Your task to perform on an android device: Do I have any events tomorrow? Image 0: 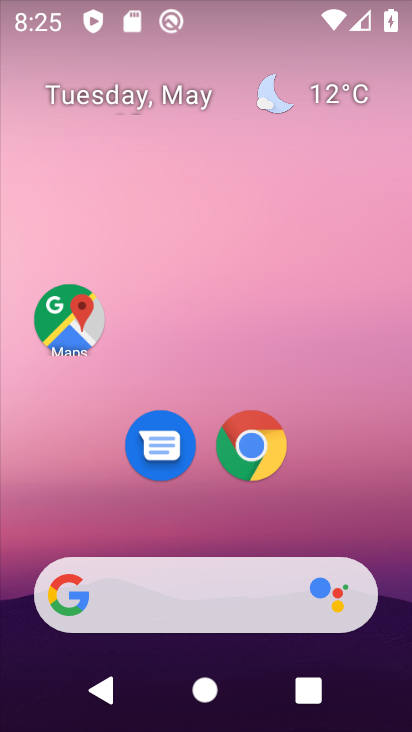
Step 0: drag from (304, 540) to (303, 334)
Your task to perform on an android device: Do I have any events tomorrow? Image 1: 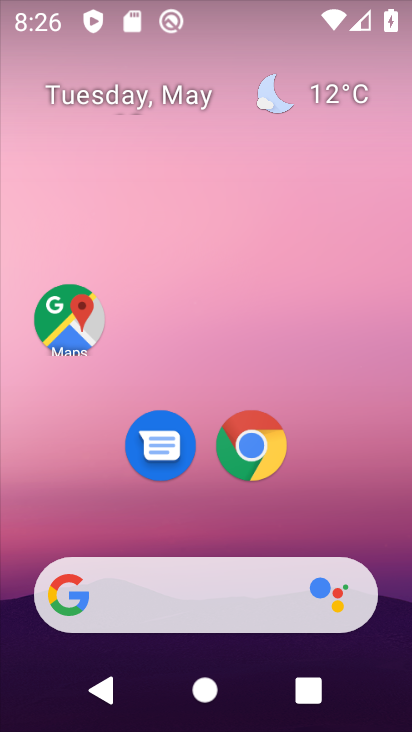
Step 1: drag from (300, 504) to (302, 333)
Your task to perform on an android device: Do I have any events tomorrow? Image 2: 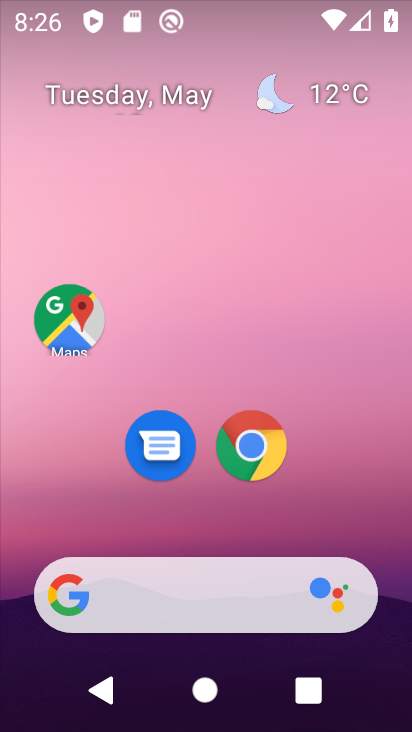
Step 2: drag from (276, 515) to (286, 350)
Your task to perform on an android device: Do I have any events tomorrow? Image 3: 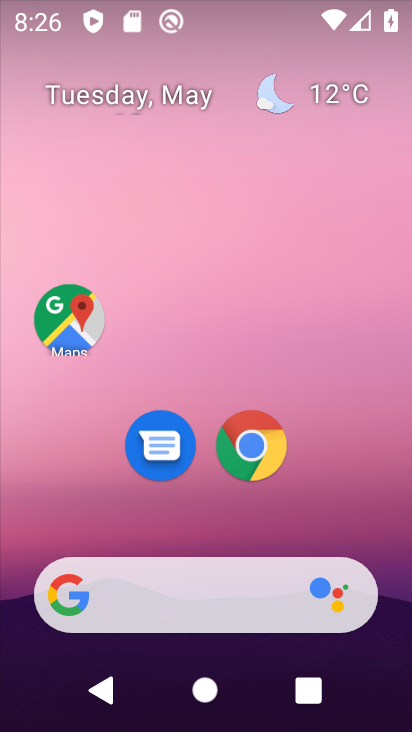
Step 3: drag from (327, 483) to (327, 67)
Your task to perform on an android device: Do I have any events tomorrow? Image 4: 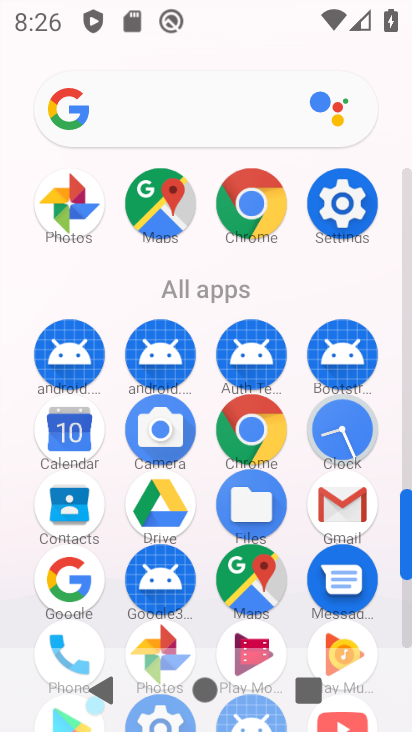
Step 4: click (71, 449)
Your task to perform on an android device: Do I have any events tomorrow? Image 5: 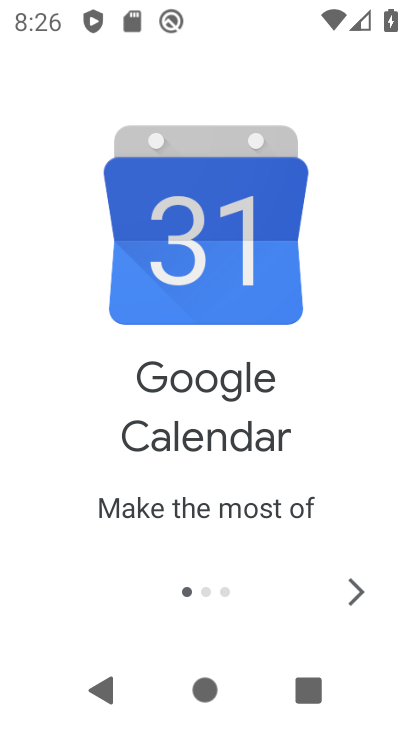
Step 5: click (357, 593)
Your task to perform on an android device: Do I have any events tomorrow? Image 6: 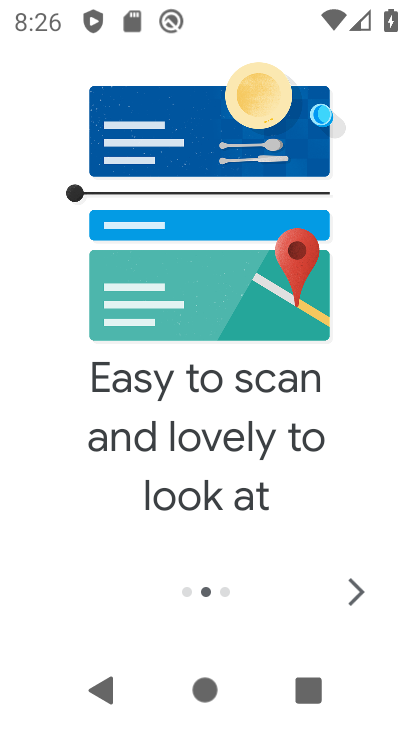
Step 6: click (357, 593)
Your task to perform on an android device: Do I have any events tomorrow? Image 7: 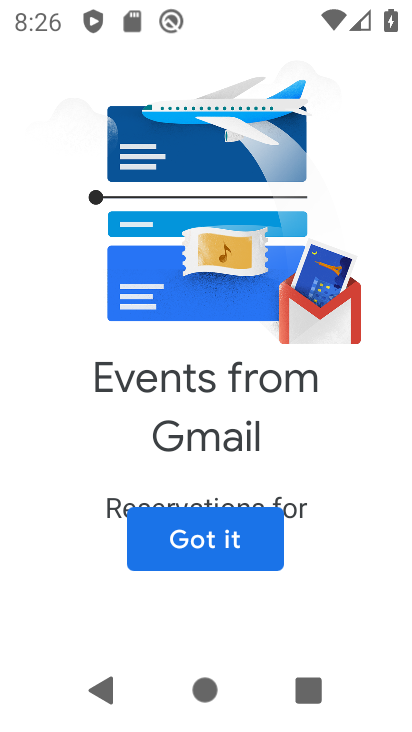
Step 7: click (238, 559)
Your task to perform on an android device: Do I have any events tomorrow? Image 8: 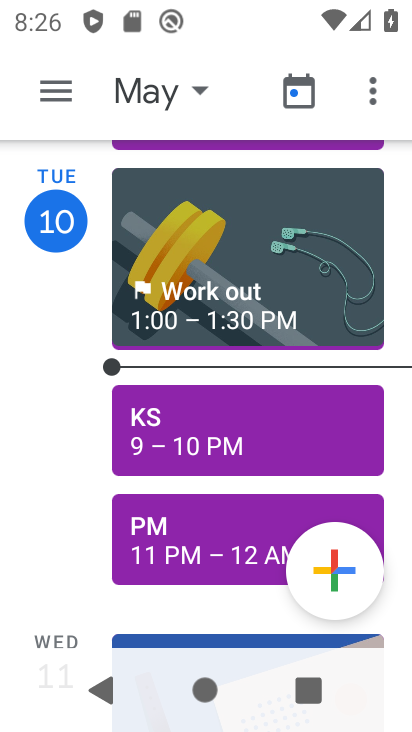
Step 8: task complete